Your task to perform on an android device: remove spam from my inbox in the gmail app Image 0: 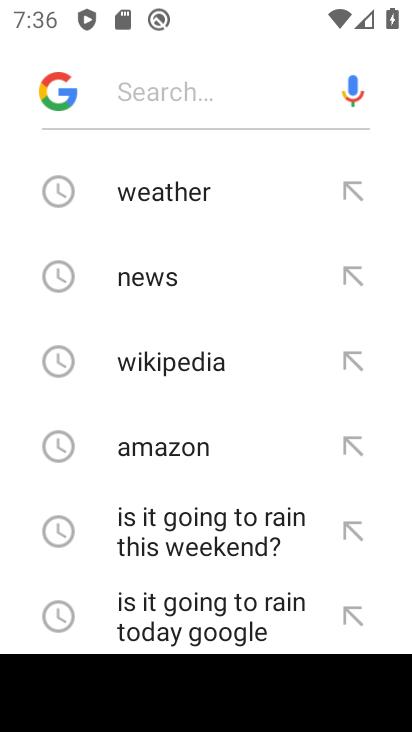
Step 0: press home button
Your task to perform on an android device: remove spam from my inbox in the gmail app Image 1: 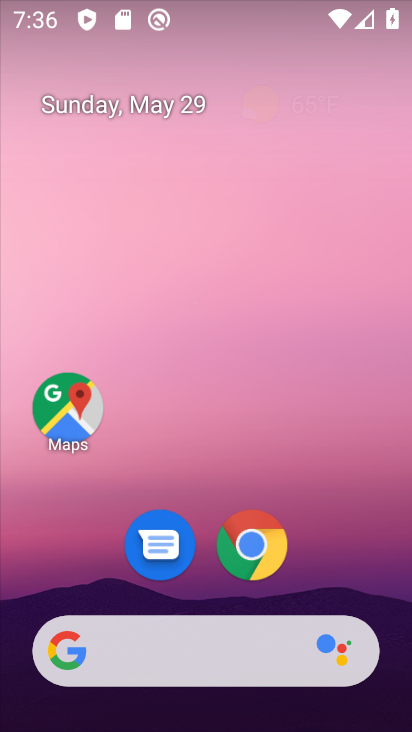
Step 1: drag from (94, 511) to (187, 179)
Your task to perform on an android device: remove spam from my inbox in the gmail app Image 2: 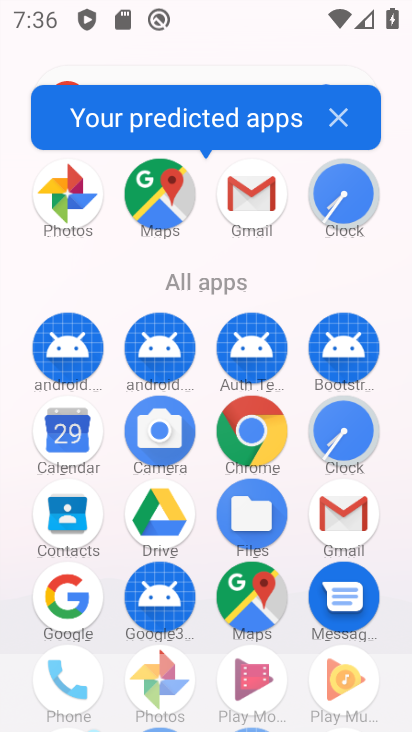
Step 2: click (264, 195)
Your task to perform on an android device: remove spam from my inbox in the gmail app Image 3: 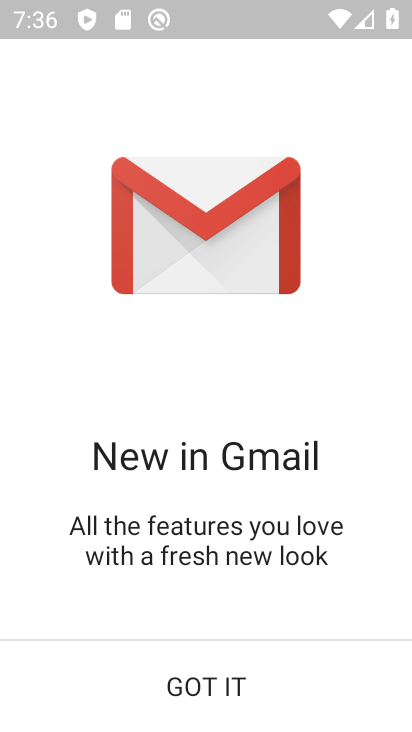
Step 3: click (202, 689)
Your task to perform on an android device: remove spam from my inbox in the gmail app Image 4: 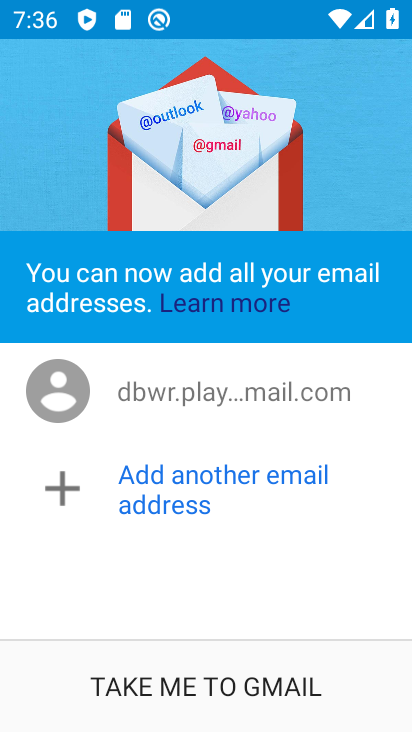
Step 4: click (208, 672)
Your task to perform on an android device: remove spam from my inbox in the gmail app Image 5: 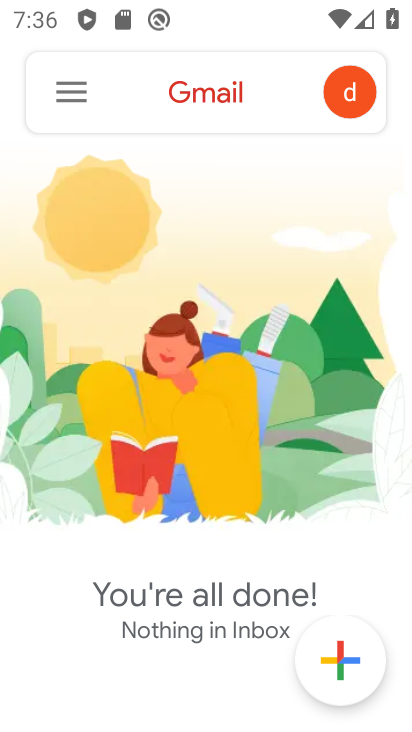
Step 5: click (77, 89)
Your task to perform on an android device: remove spam from my inbox in the gmail app Image 6: 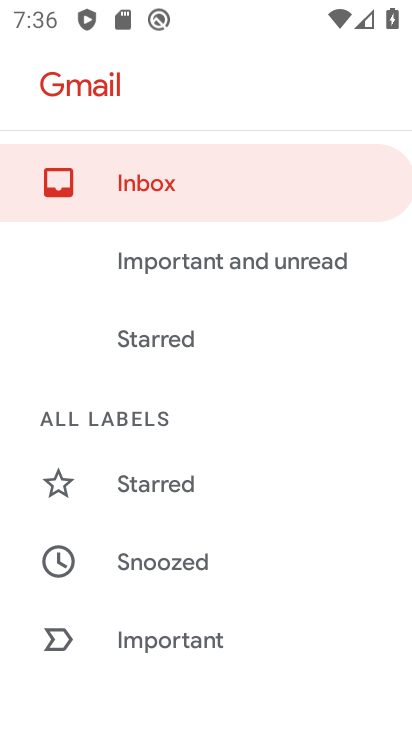
Step 6: drag from (204, 606) to (222, 284)
Your task to perform on an android device: remove spam from my inbox in the gmail app Image 7: 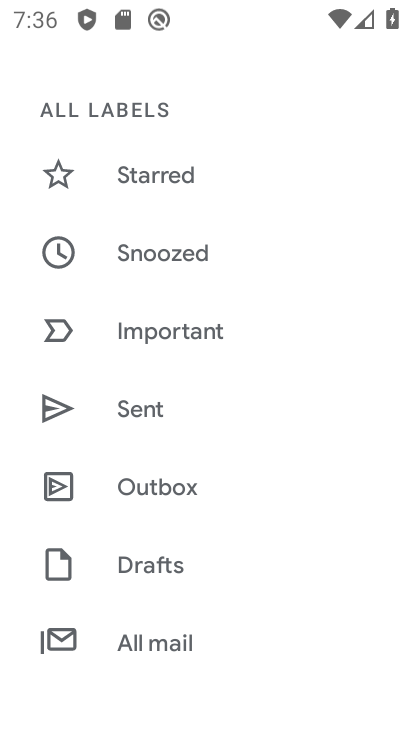
Step 7: drag from (167, 590) to (215, 339)
Your task to perform on an android device: remove spam from my inbox in the gmail app Image 8: 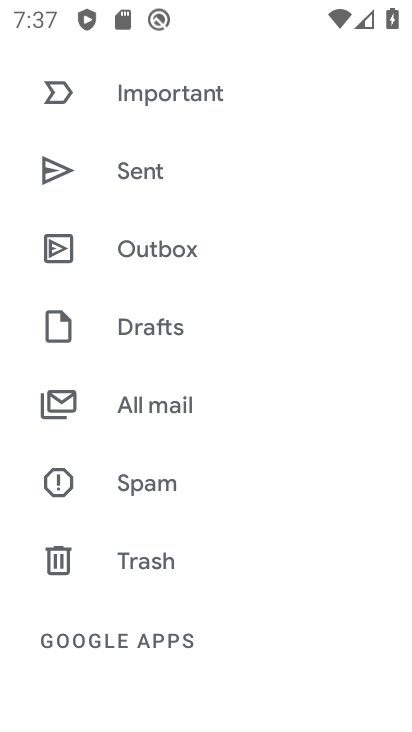
Step 8: click (152, 482)
Your task to perform on an android device: remove spam from my inbox in the gmail app Image 9: 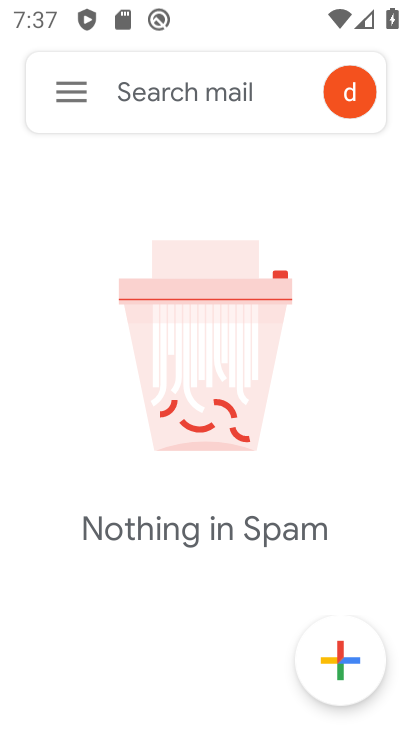
Step 9: task complete